Your task to perform on an android device: toggle notification dots Image 0: 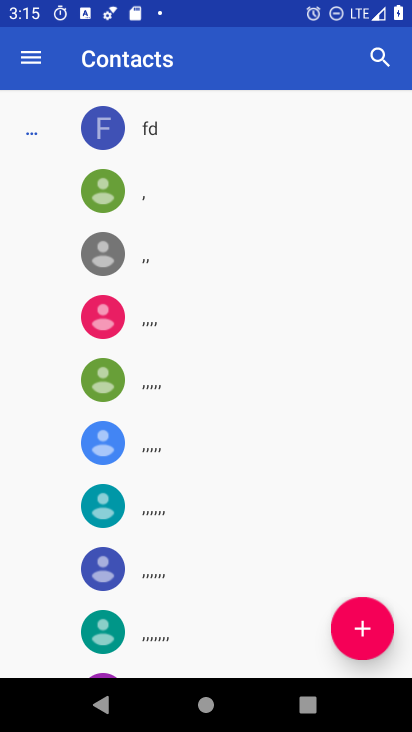
Step 0: press home button
Your task to perform on an android device: toggle notification dots Image 1: 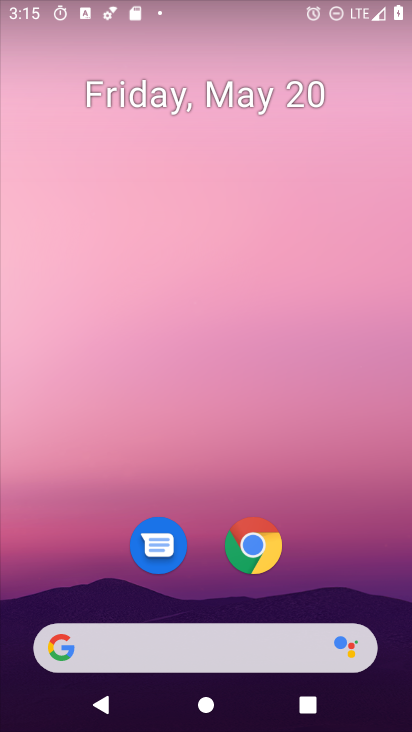
Step 1: drag from (308, 623) to (349, 0)
Your task to perform on an android device: toggle notification dots Image 2: 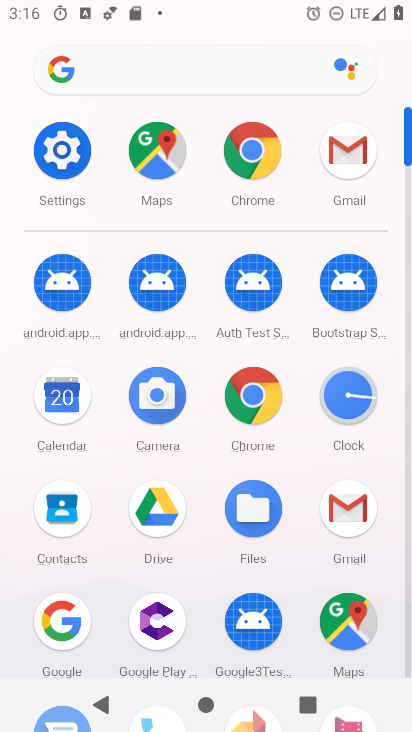
Step 2: click (66, 154)
Your task to perform on an android device: toggle notification dots Image 3: 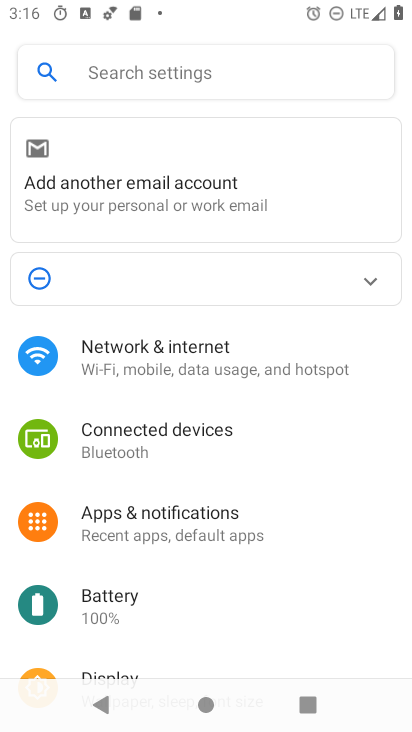
Step 3: click (189, 531)
Your task to perform on an android device: toggle notification dots Image 4: 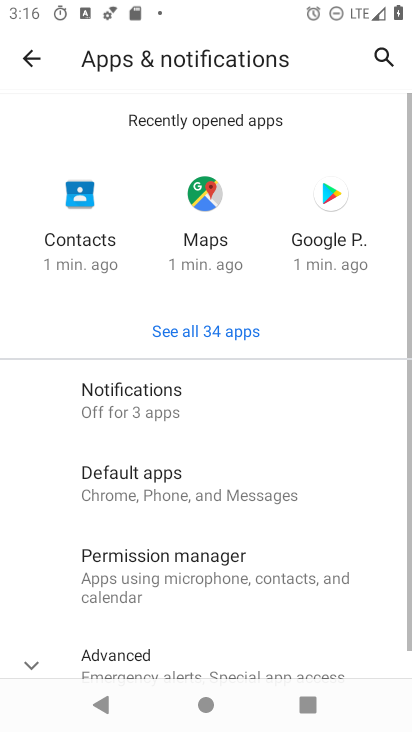
Step 4: click (186, 408)
Your task to perform on an android device: toggle notification dots Image 5: 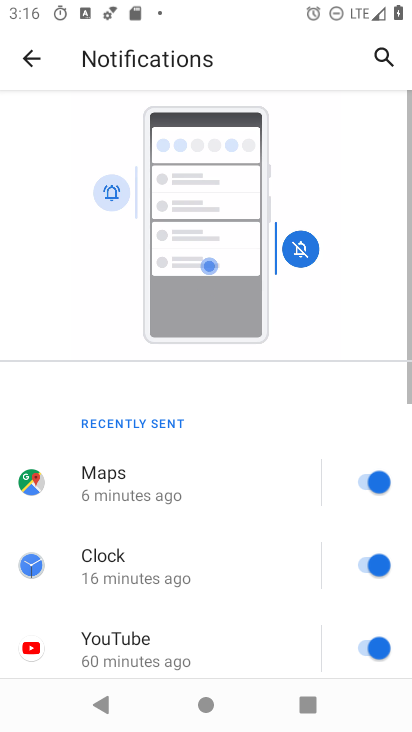
Step 5: drag from (238, 619) to (263, 106)
Your task to perform on an android device: toggle notification dots Image 6: 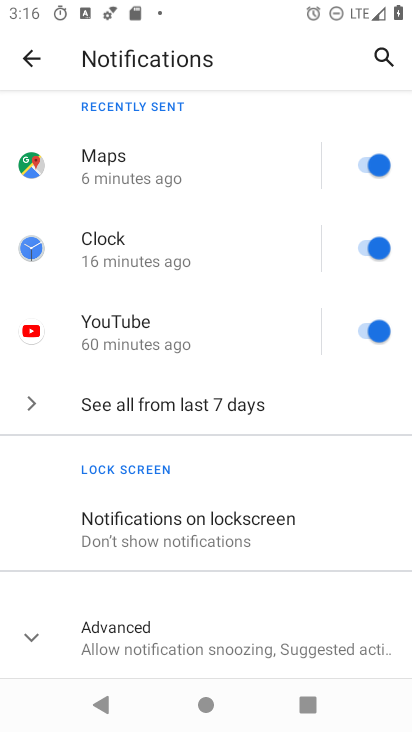
Step 6: click (228, 533)
Your task to perform on an android device: toggle notification dots Image 7: 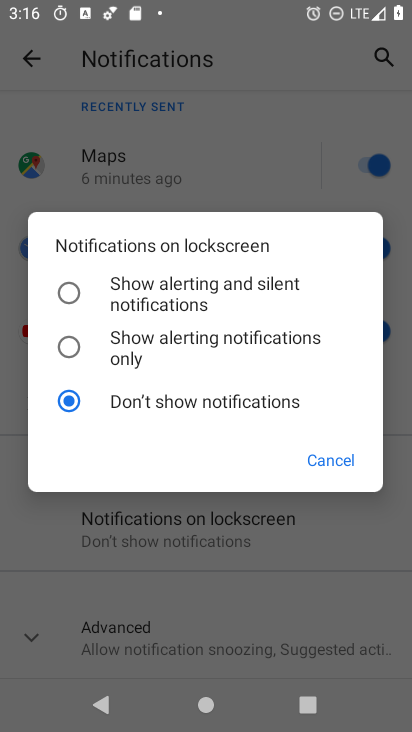
Step 7: click (330, 456)
Your task to perform on an android device: toggle notification dots Image 8: 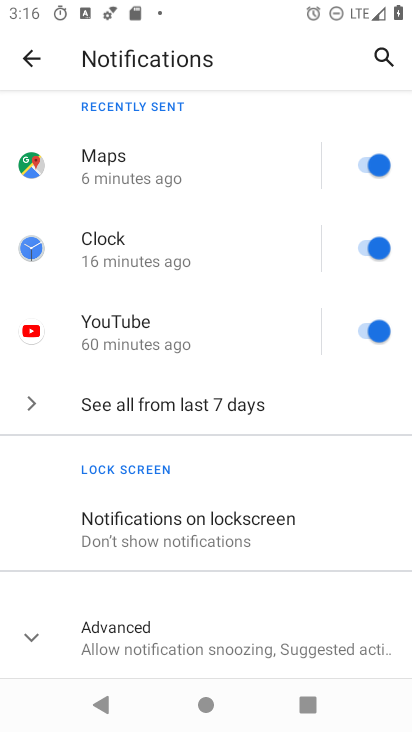
Step 8: click (254, 636)
Your task to perform on an android device: toggle notification dots Image 9: 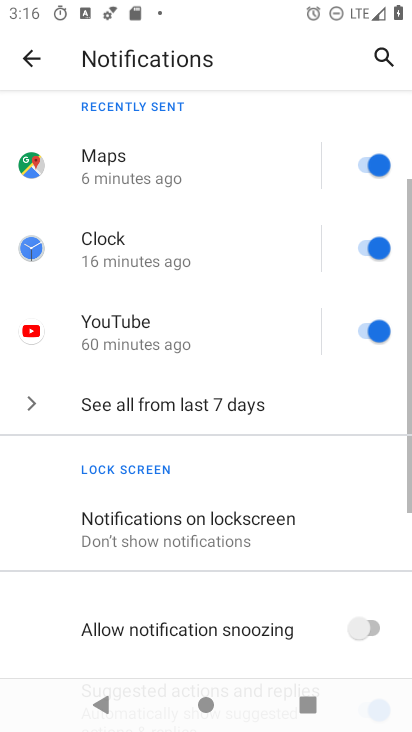
Step 9: drag from (269, 643) to (280, 91)
Your task to perform on an android device: toggle notification dots Image 10: 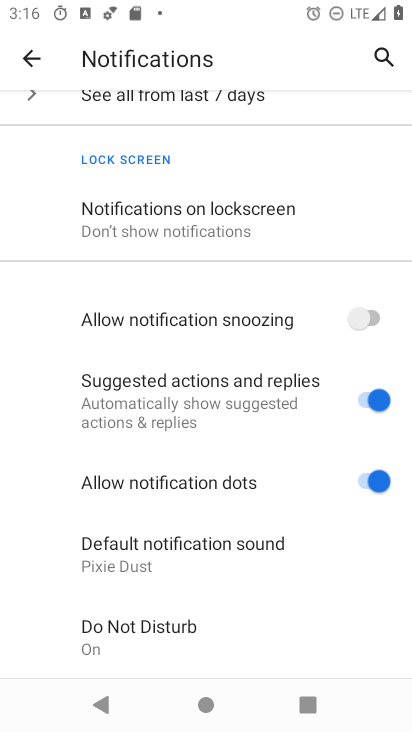
Step 10: click (370, 484)
Your task to perform on an android device: toggle notification dots Image 11: 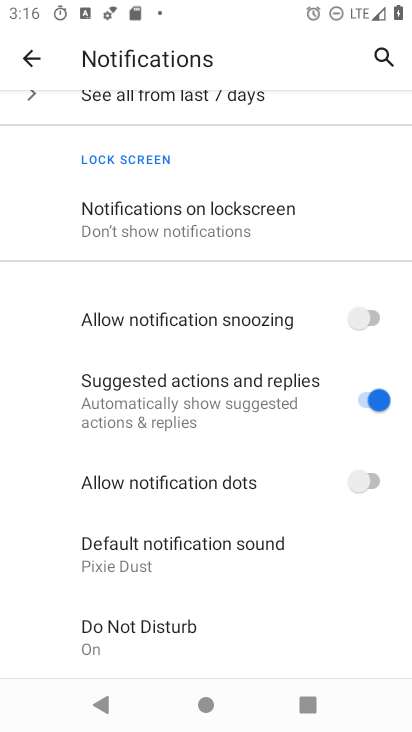
Step 11: task complete